Your task to perform on an android device: Open calendar and show me the fourth week of next month Image 0: 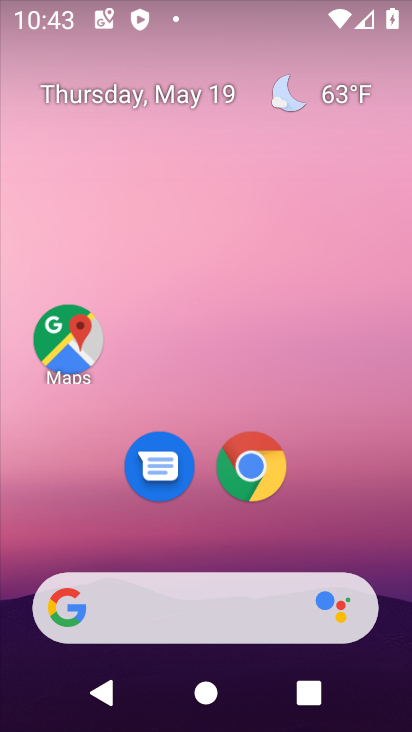
Step 0: drag from (397, 621) to (188, 0)
Your task to perform on an android device: Open calendar and show me the fourth week of next month Image 1: 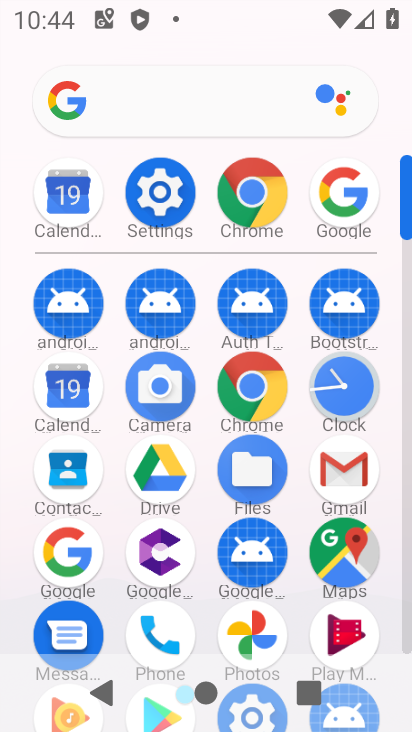
Step 1: click (80, 396)
Your task to perform on an android device: Open calendar and show me the fourth week of next month Image 2: 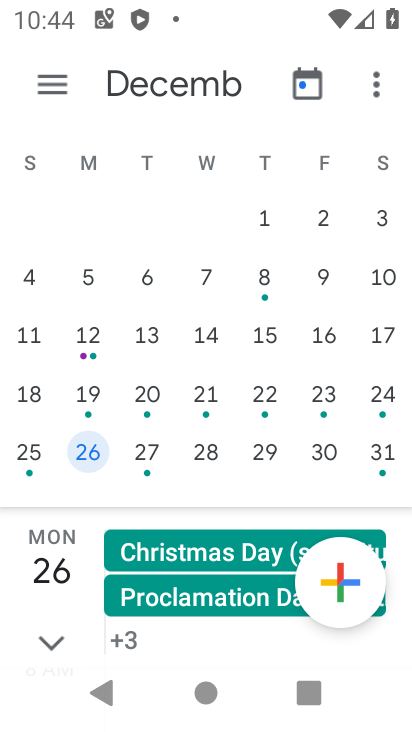
Step 2: drag from (315, 397) to (0, 363)
Your task to perform on an android device: Open calendar and show me the fourth week of next month Image 3: 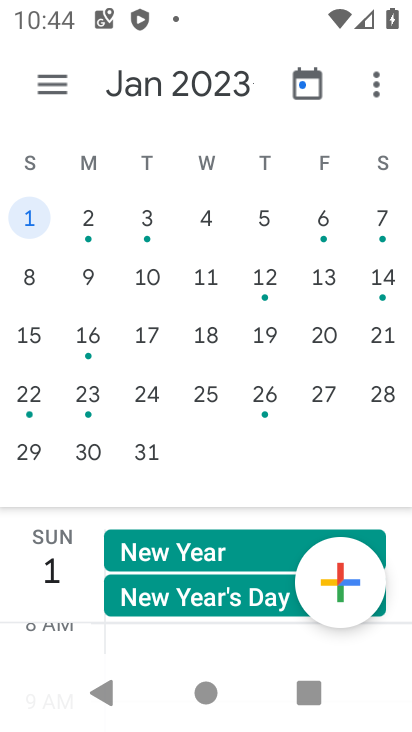
Step 3: click (272, 401)
Your task to perform on an android device: Open calendar and show me the fourth week of next month Image 4: 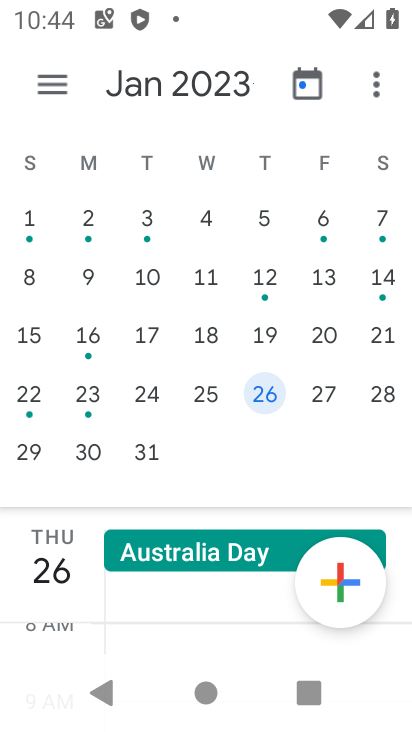
Step 4: task complete